Your task to perform on an android device: Search for the ikea sjalv lamp Image 0: 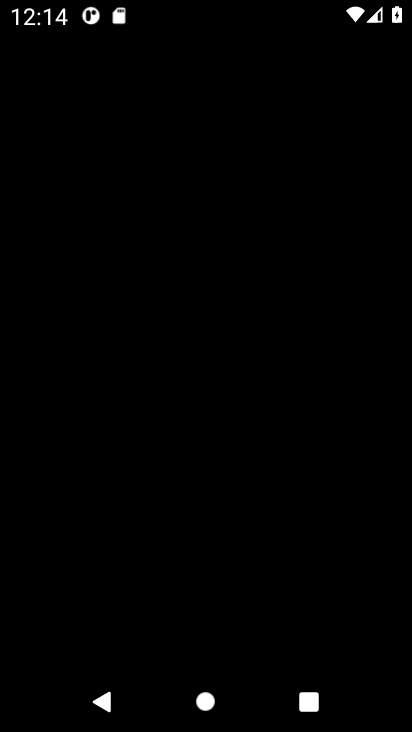
Step 0: press home button
Your task to perform on an android device: Search for the ikea sjalv lamp Image 1: 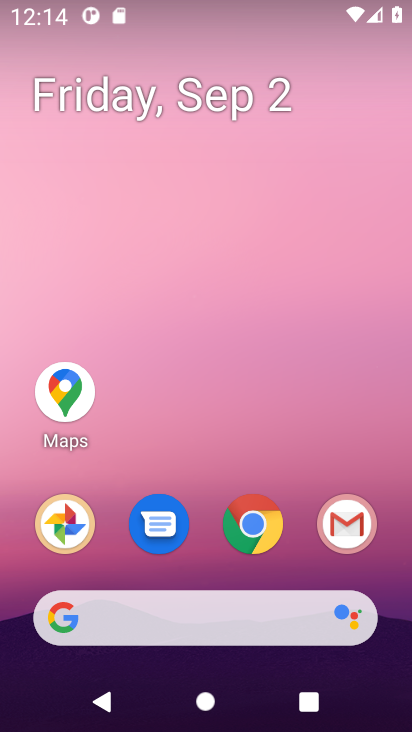
Step 1: click (270, 615)
Your task to perform on an android device: Search for the ikea sjalv lamp Image 2: 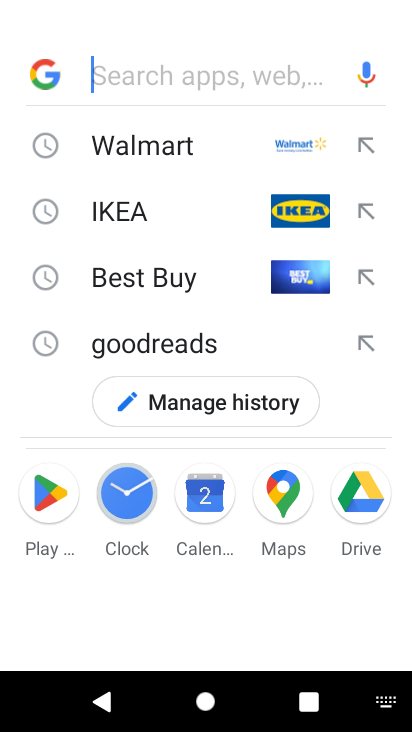
Step 2: click (140, 215)
Your task to perform on an android device: Search for the ikea sjalv lamp Image 3: 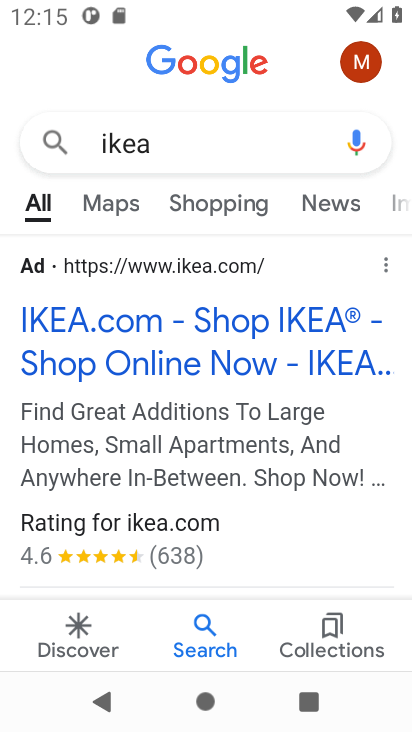
Step 3: click (261, 351)
Your task to perform on an android device: Search for the ikea sjalv lamp Image 4: 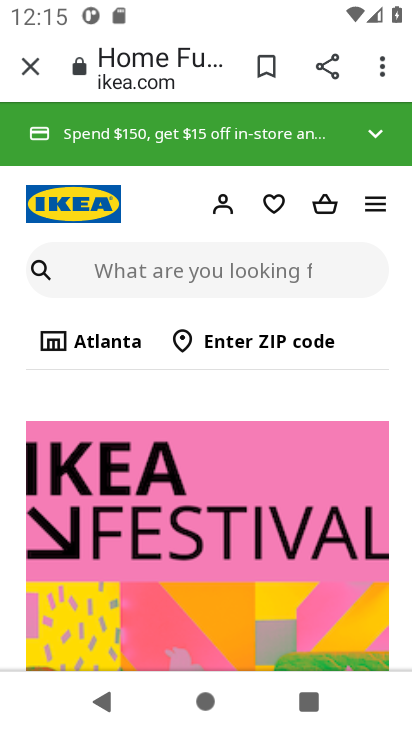
Step 4: click (212, 267)
Your task to perform on an android device: Search for the ikea sjalv lamp Image 5: 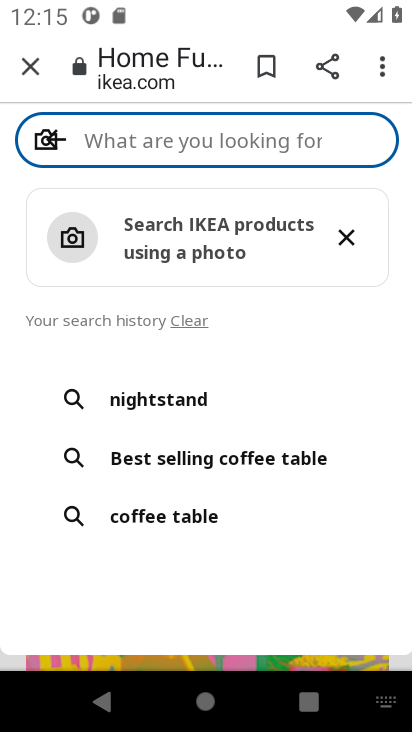
Step 5: press enter
Your task to perform on an android device: Search for the ikea sjalv lamp Image 6: 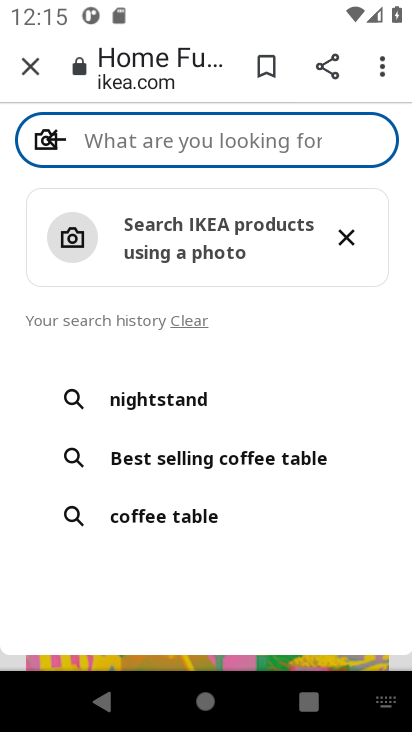
Step 6: type "sjalv lamp"
Your task to perform on an android device: Search for the ikea sjalv lamp Image 7: 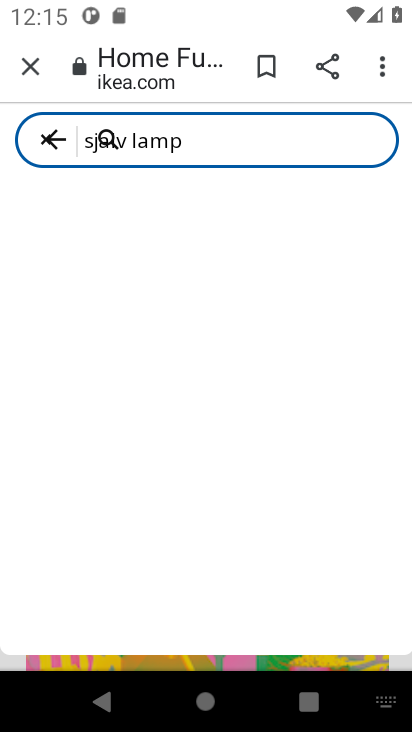
Step 7: click (45, 136)
Your task to perform on an android device: Search for the ikea sjalv lamp Image 8: 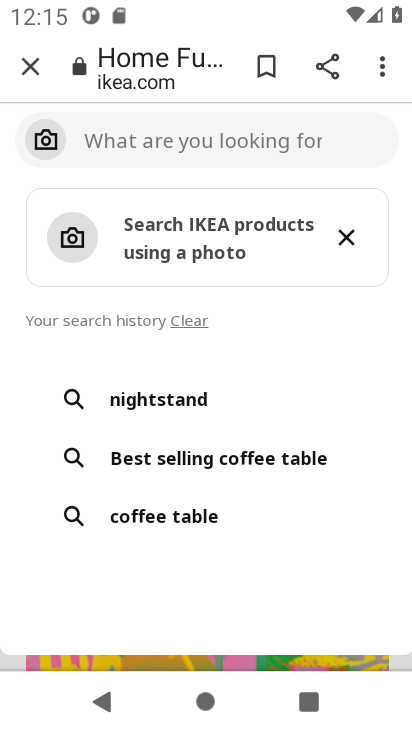
Step 8: click (268, 129)
Your task to perform on an android device: Search for the ikea sjalv lamp Image 9: 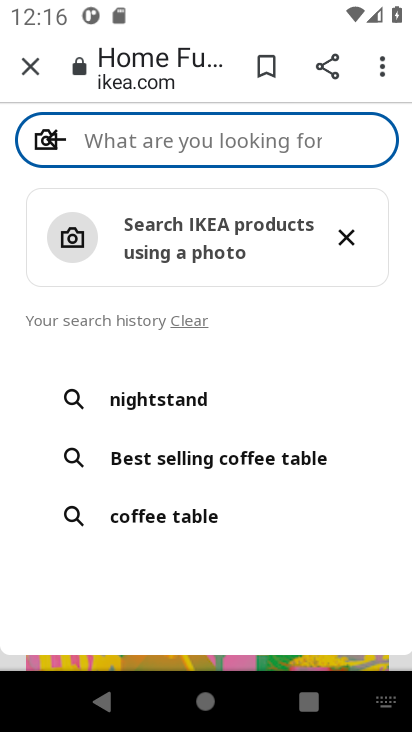
Step 9: press enter
Your task to perform on an android device: Search for the ikea sjalv lamp Image 10: 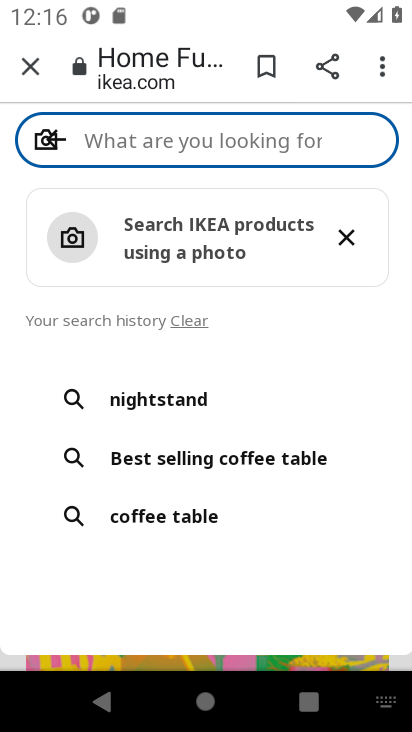
Step 10: type "ikea sjalv lamp"
Your task to perform on an android device: Search for the ikea sjalv lamp Image 11: 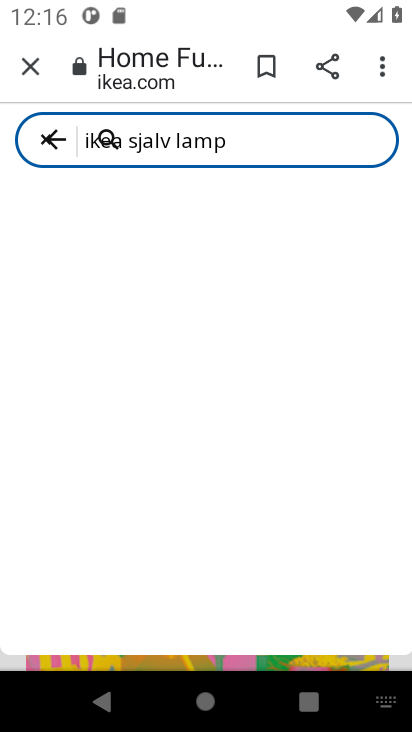
Step 11: click (43, 134)
Your task to perform on an android device: Search for the ikea sjalv lamp Image 12: 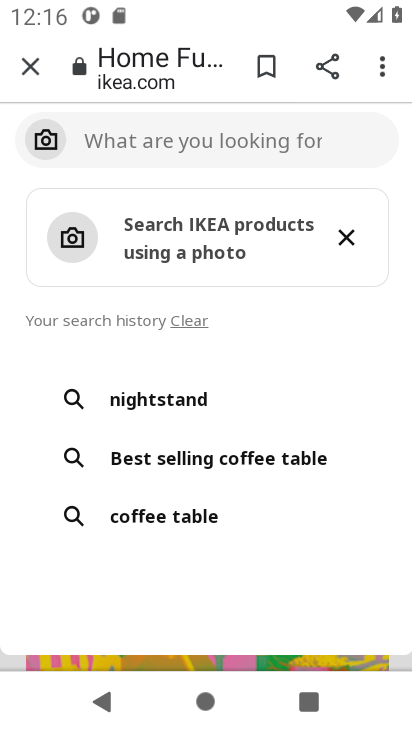
Step 12: task complete